Your task to perform on an android device: Open my contact list Image 0: 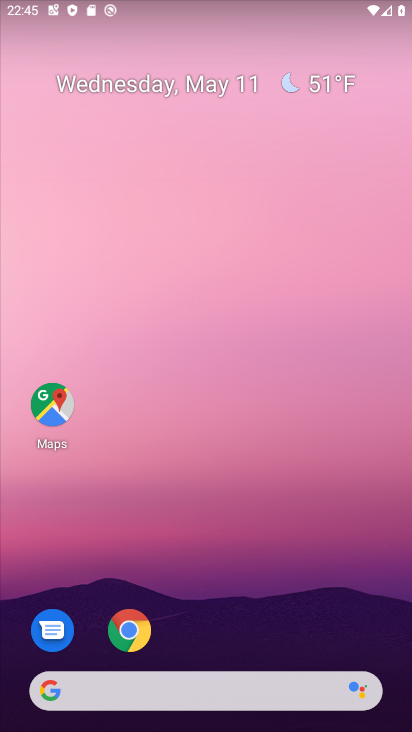
Step 0: drag from (201, 727) to (187, 116)
Your task to perform on an android device: Open my contact list Image 1: 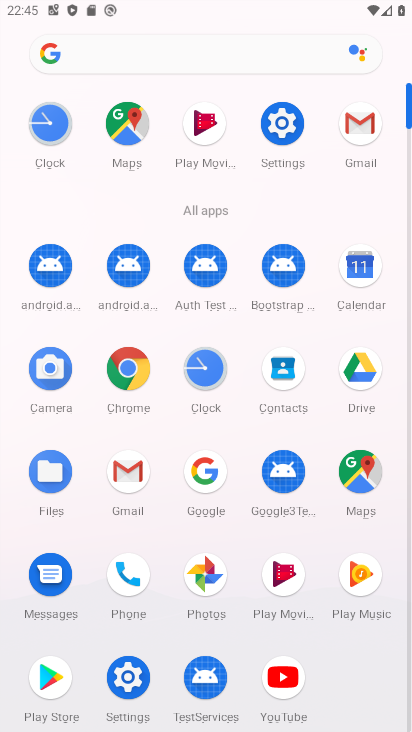
Step 1: click (279, 373)
Your task to perform on an android device: Open my contact list Image 2: 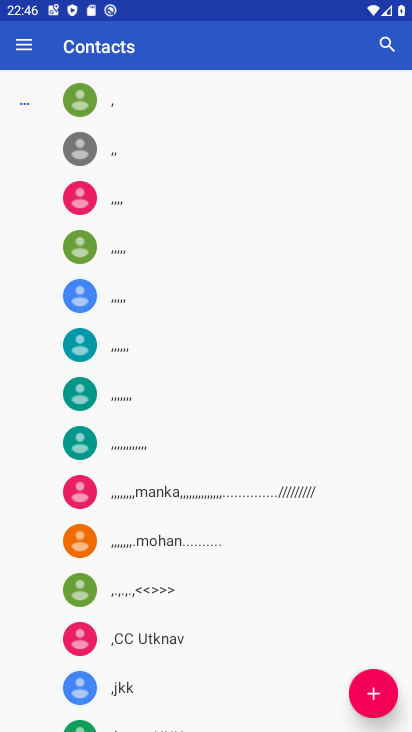
Step 2: task complete